Your task to perform on an android device: make emails show in primary in the gmail app Image 0: 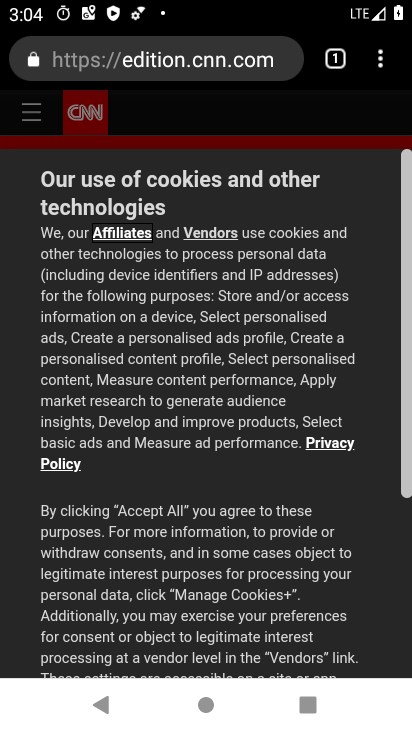
Step 0: press home button
Your task to perform on an android device: make emails show in primary in the gmail app Image 1: 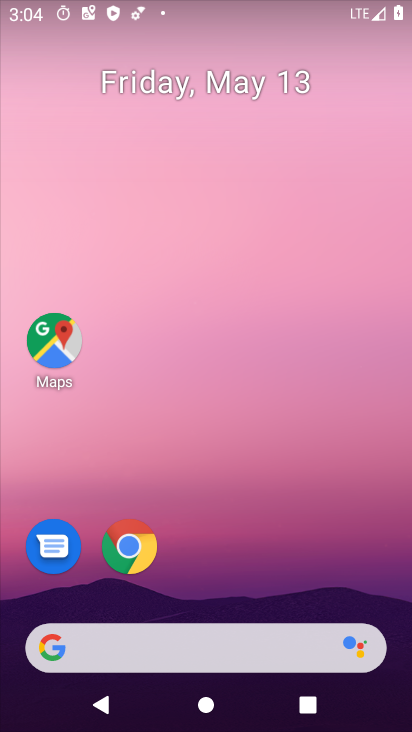
Step 1: drag from (239, 504) to (343, 55)
Your task to perform on an android device: make emails show in primary in the gmail app Image 2: 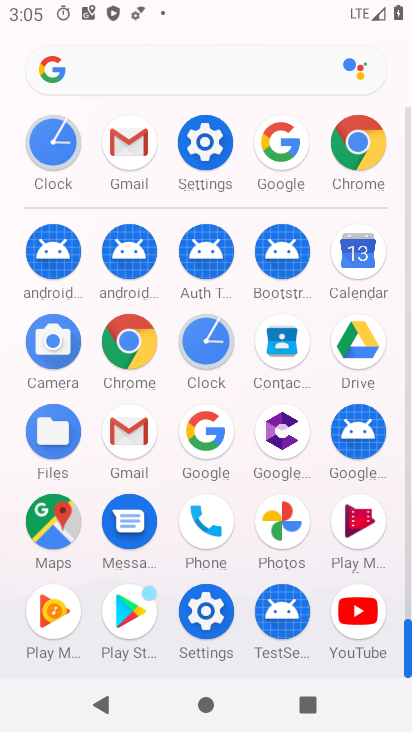
Step 2: click (138, 430)
Your task to perform on an android device: make emails show in primary in the gmail app Image 3: 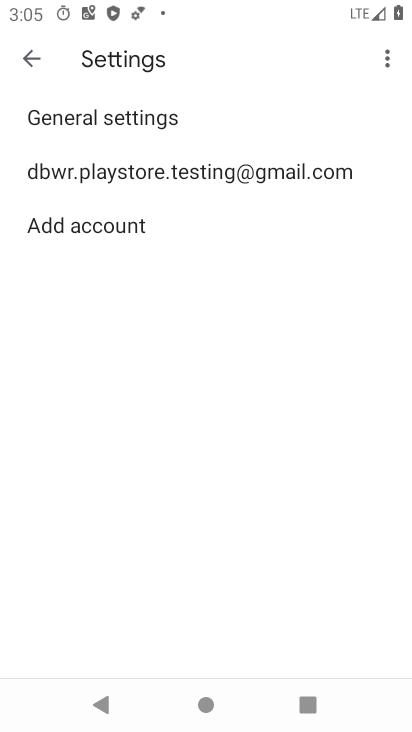
Step 3: click (202, 165)
Your task to perform on an android device: make emails show in primary in the gmail app Image 4: 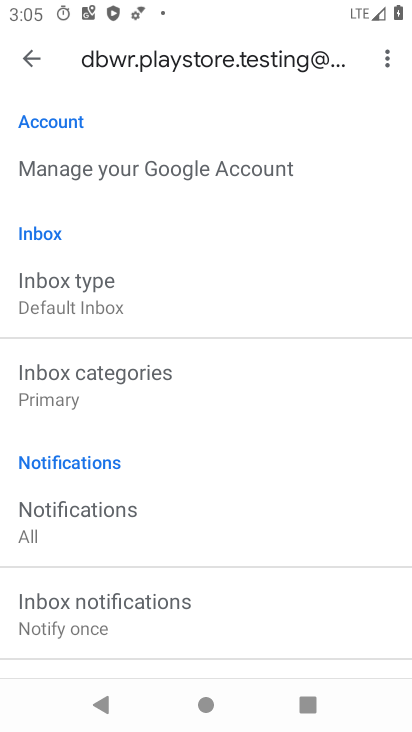
Step 4: task complete